Your task to perform on an android device: Open sound settings Image 0: 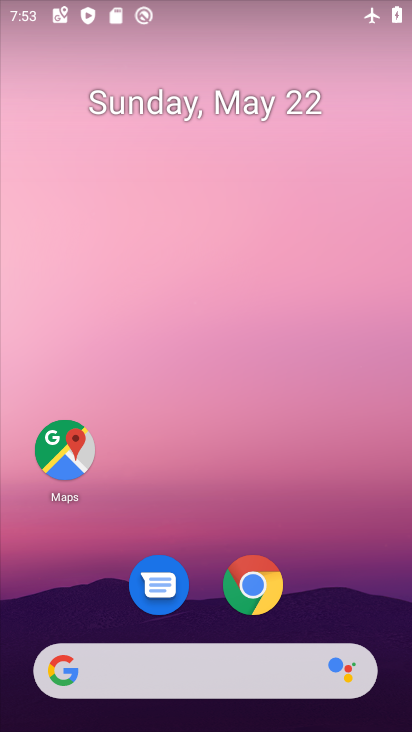
Step 0: drag from (214, 506) to (188, 44)
Your task to perform on an android device: Open sound settings Image 1: 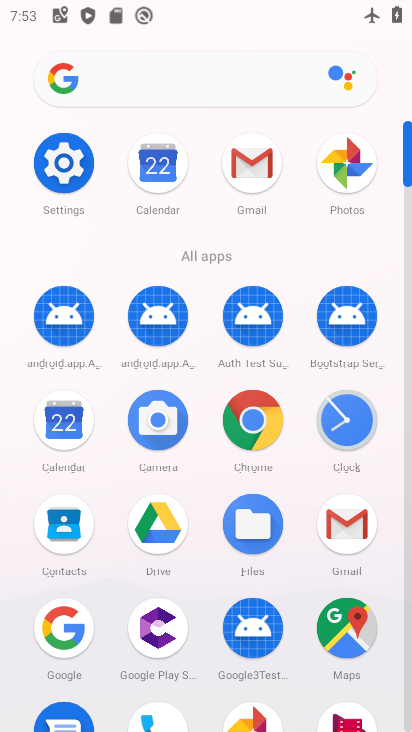
Step 1: click (67, 162)
Your task to perform on an android device: Open sound settings Image 2: 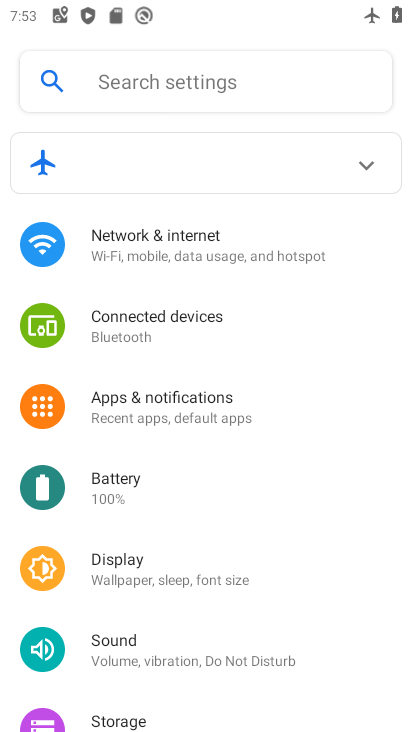
Step 2: click (163, 641)
Your task to perform on an android device: Open sound settings Image 3: 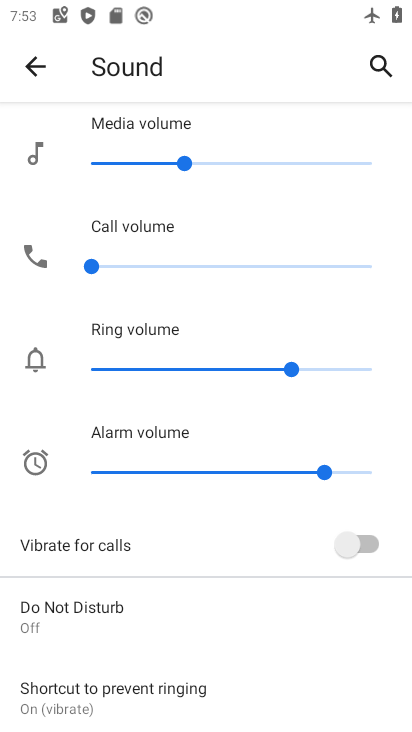
Step 3: task complete